Your task to perform on an android device: star an email in the gmail app Image 0: 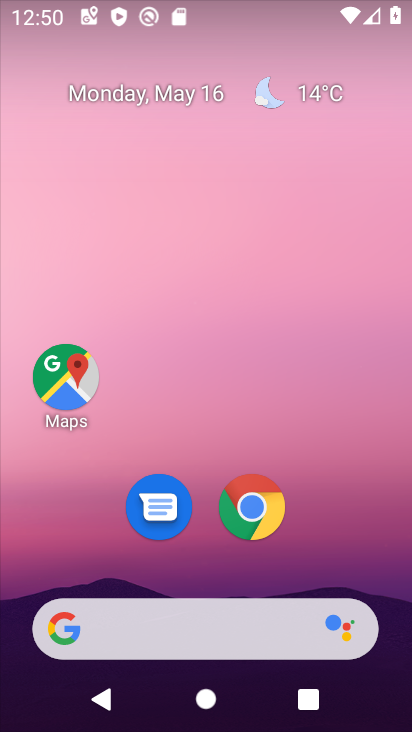
Step 0: drag from (0, 677) to (213, 165)
Your task to perform on an android device: star an email in the gmail app Image 1: 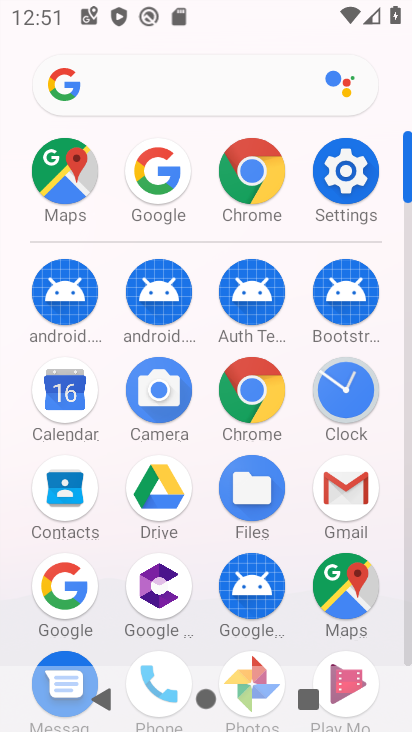
Step 1: click (329, 485)
Your task to perform on an android device: star an email in the gmail app Image 2: 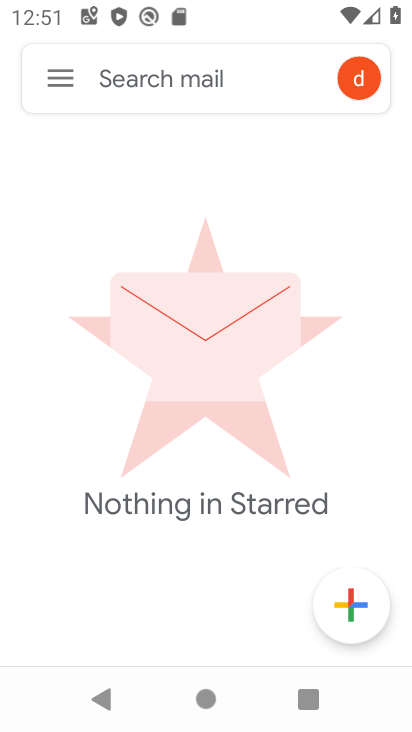
Step 2: click (67, 69)
Your task to perform on an android device: star an email in the gmail app Image 3: 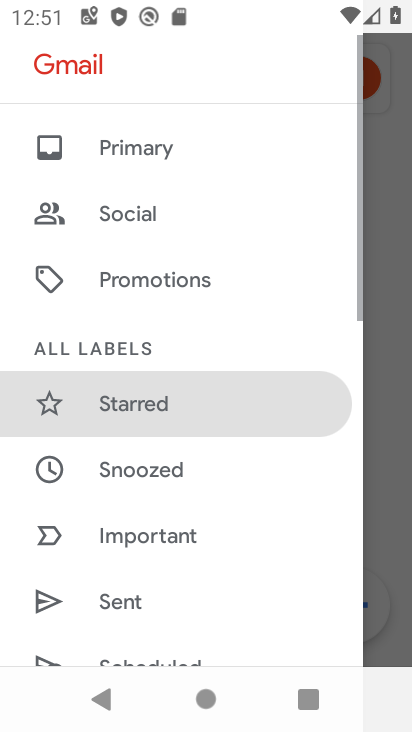
Step 3: drag from (121, 608) to (217, 111)
Your task to perform on an android device: star an email in the gmail app Image 4: 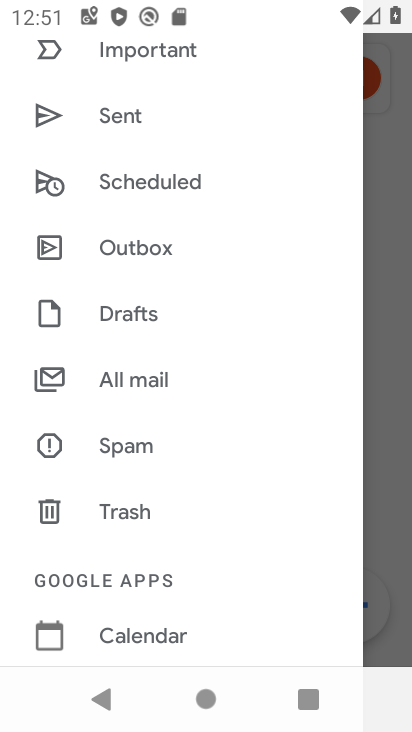
Step 4: click (71, 394)
Your task to perform on an android device: star an email in the gmail app Image 5: 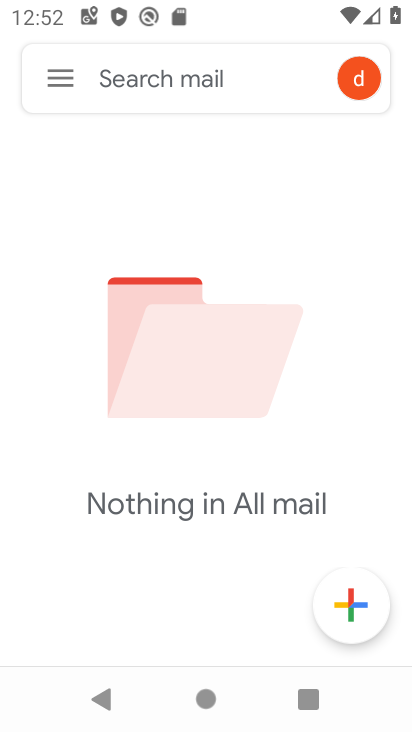
Step 5: task complete